Your task to perform on an android device: make emails show in primary in the gmail app Image 0: 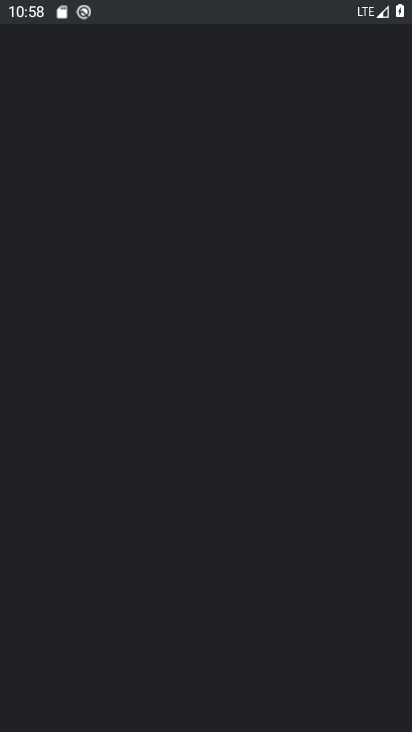
Step 0: drag from (242, 461) to (311, 216)
Your task to perform on an android device: make emails show in primary in the gmail app Image 1: 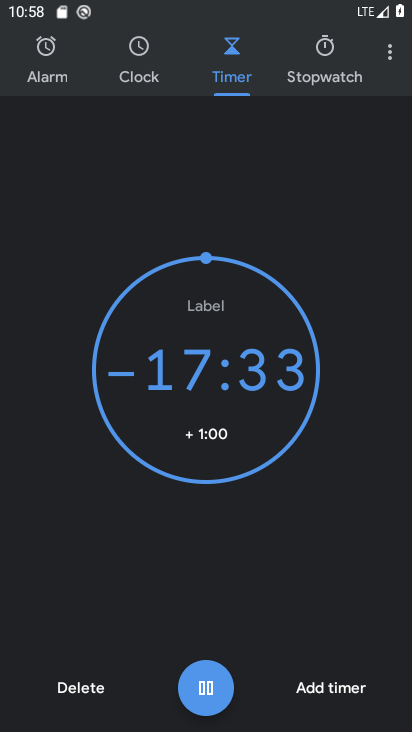
Step 1: press home button
Your task to perform on an android device: make emails show in primary in the gmail app Image 2: 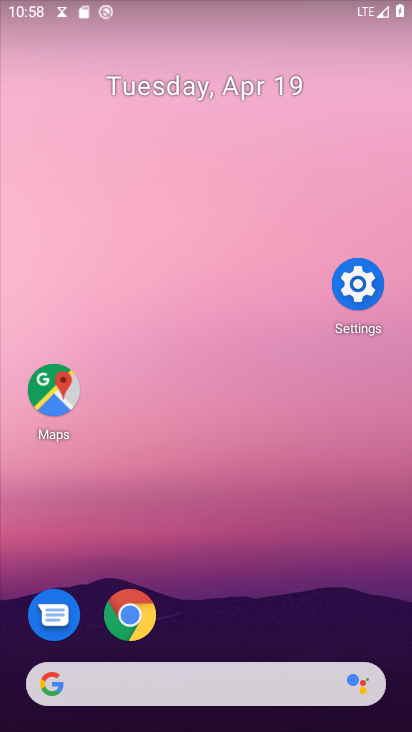
Step 2: drag from (204, 624) to (252, 163)
Your task to perform on an android device: make emails show in primary in the gmail app Image 3: 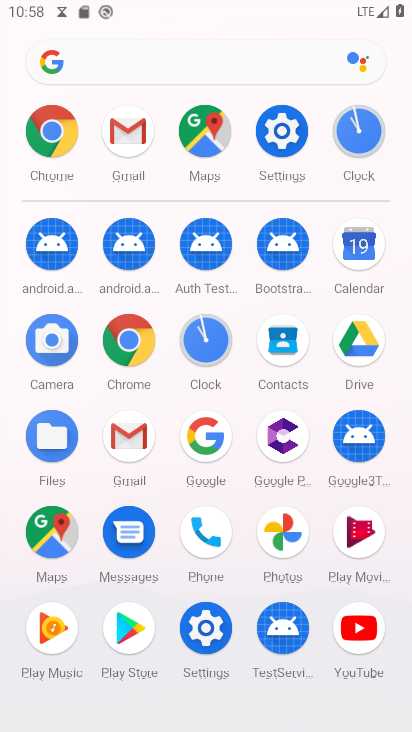
Step 3: drag from (234, 563) to (242, 136)
Your task to perform on an android device: make emails show in primary in the gmail app Image 4: 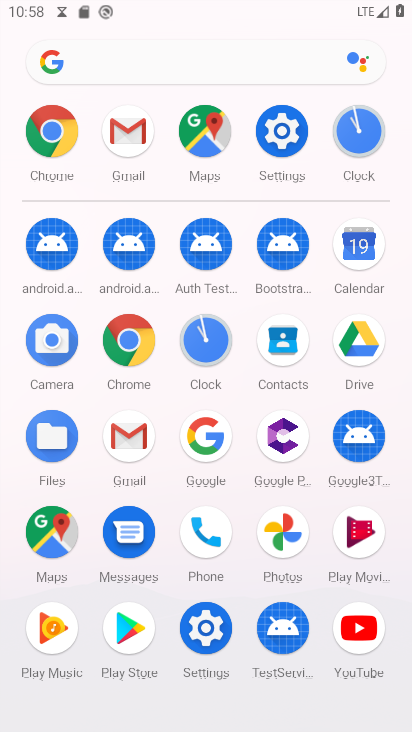
Step 4: click (123, 431)
Your task to perform on an android device: make emails show in primary in the gmail app Image 5: 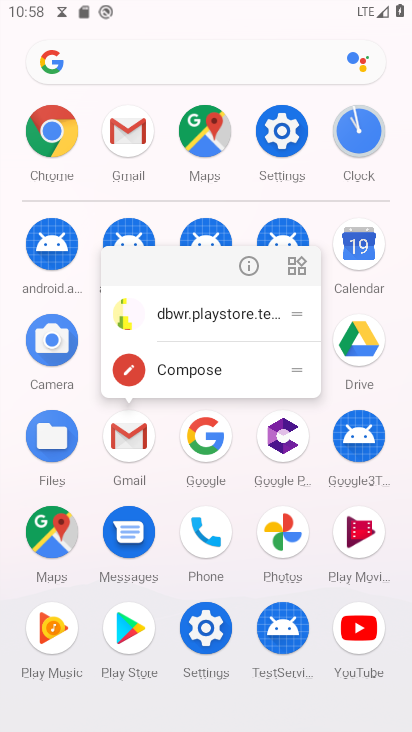
Step 5: click (255, 263)
Your task to perform on an android device: make emails show in primary in the gmail app Image 6: 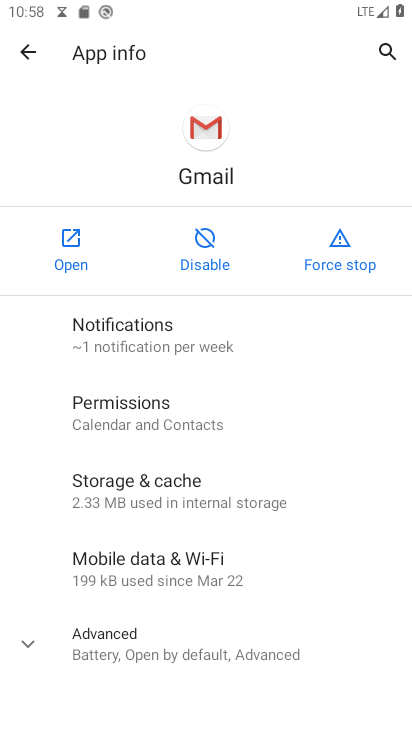
Step 6: click (65, 235)
Your task to perform on an android device: make emails show in primary in the gmail app Image 7: 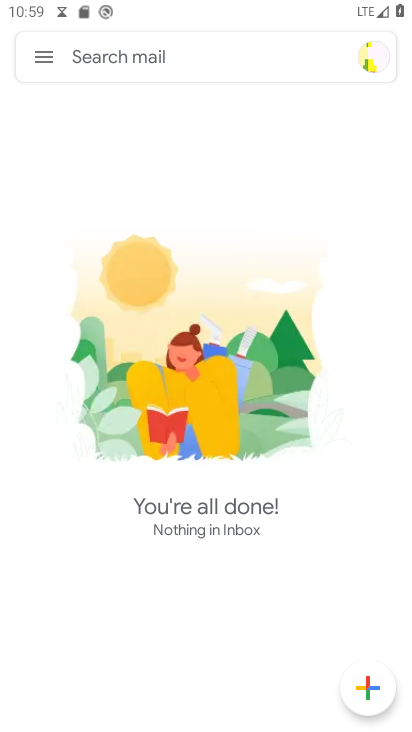
Step 7: click (46, 49)
Your task to perform on an android device: make emails show in primary in the gmail app Image 8: 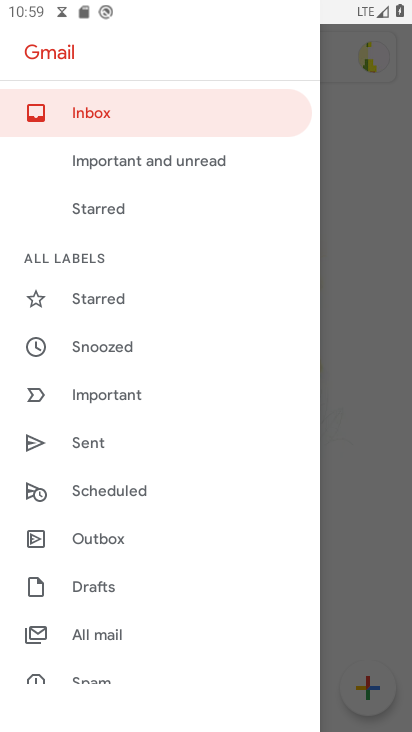
Step 8: click (141, 104)
Your task to perform on an android device: make emails show in primary in the gmail app Image 9: 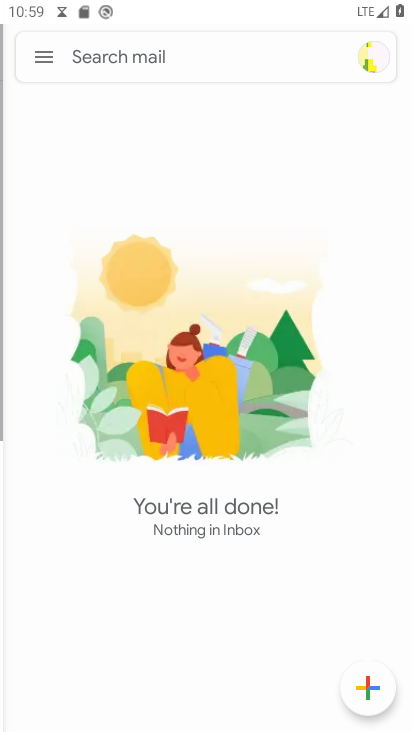
Step 9: task complete